Your task to perform on an android device: Open the calendar app, open the side menu, and click the "Day" option Image 0: 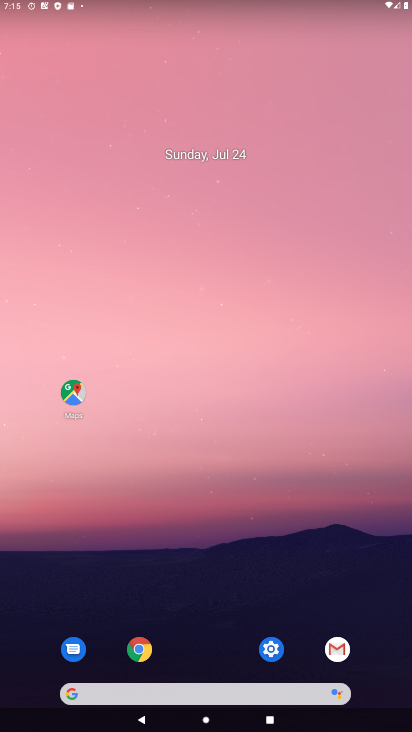
Step 0: drag from (269, 692) to (185, 183)
Your task to perform on an android device: Open the calendar app, open the side menu, and click the "Day" option Image 1: 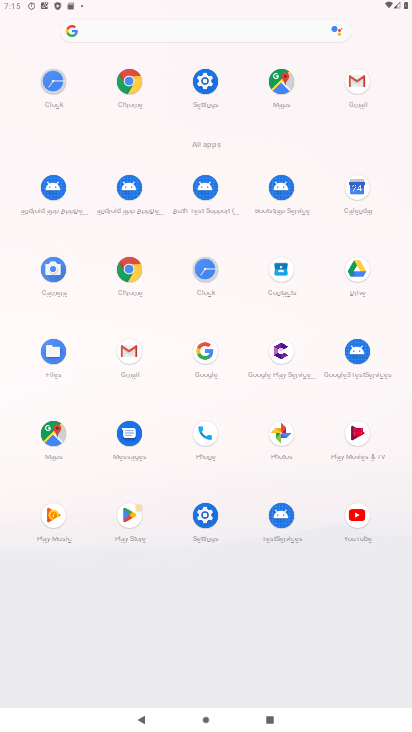
Step 1: click (355, 196)
Your task to perform on an android device: Open the calendar app, open the side menu, and click the "Day" option Image 2: 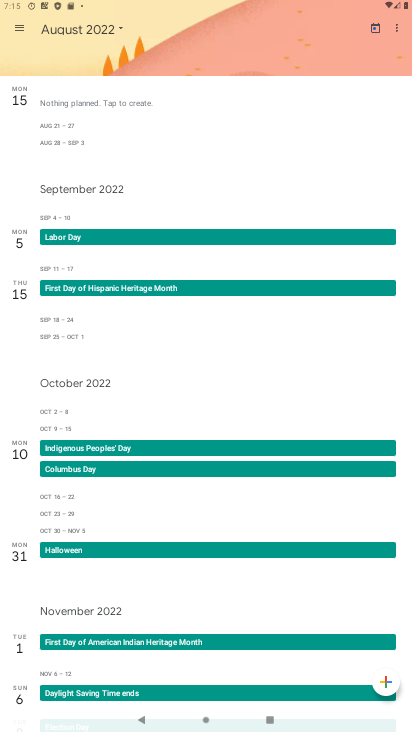
Step 2: click (24, 32)
Your task to perform on an android device: Open the calendar app, open the side menu, and click the "Day" option Image 3: 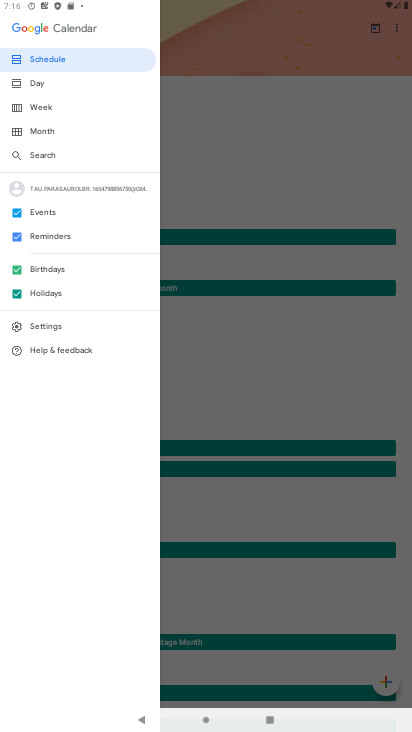
Step 3: click (55, 81)
Your task to perform on an android device: Open the calendar app, open the side menu, and click the "Day" option Image 4: 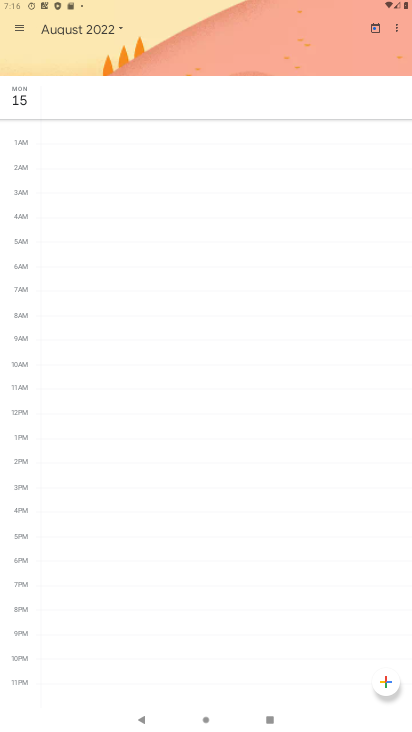
Step 4: task complete